Your task to perform on an android device: What's the weather today? Image 0: 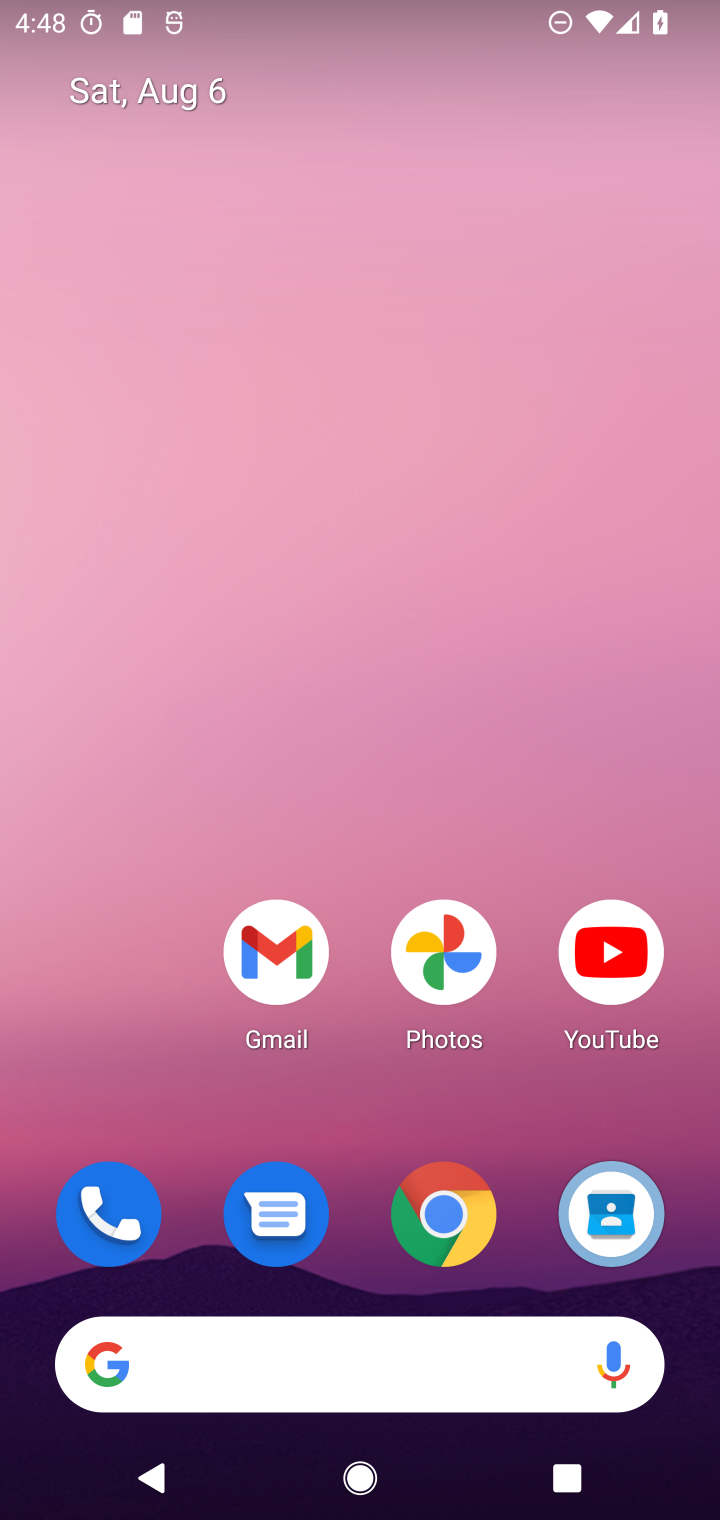
Step 0: click (417, 1402)
Your task to perform on an android device: What's the weather today? Image 1: 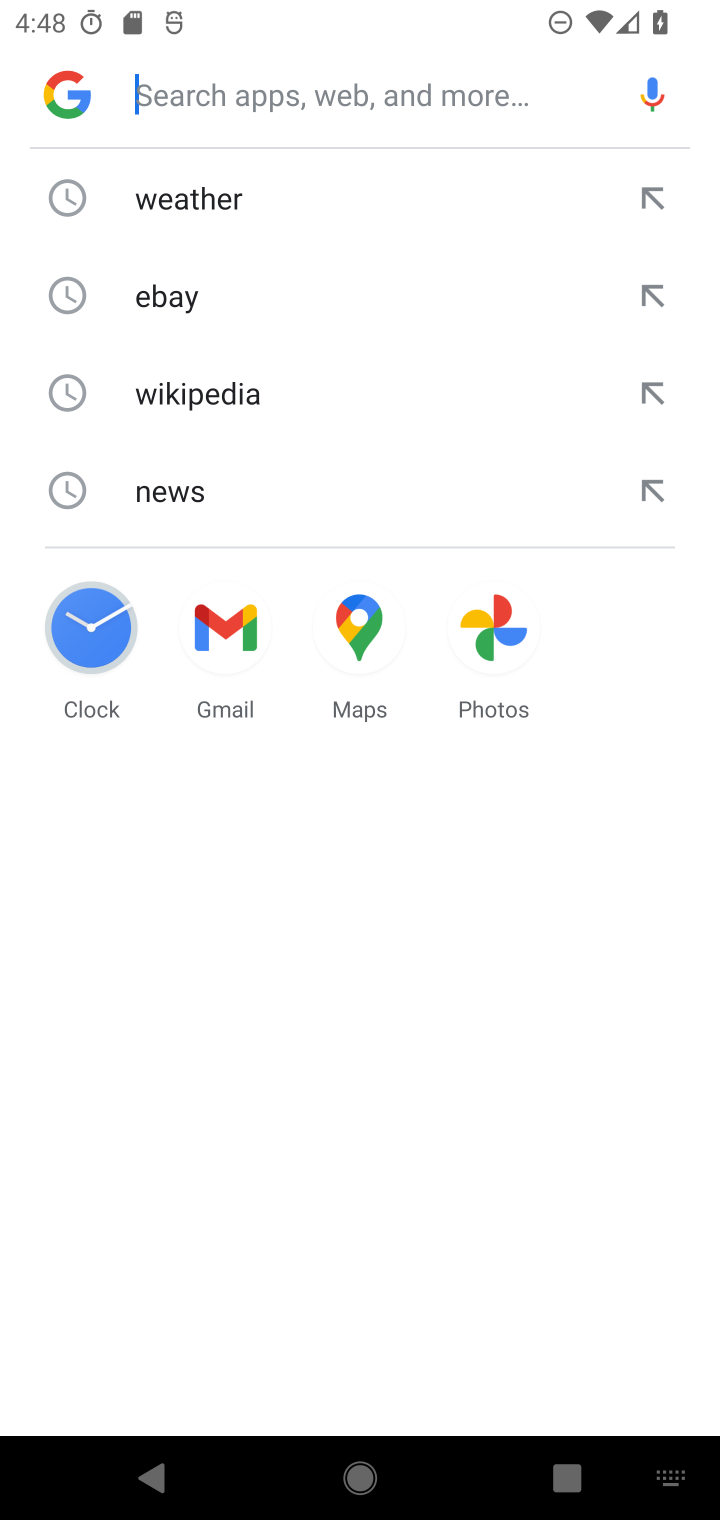
Step 1: click (168, 193)
Your task to perform on an android device: What's the weather today? Image 2: 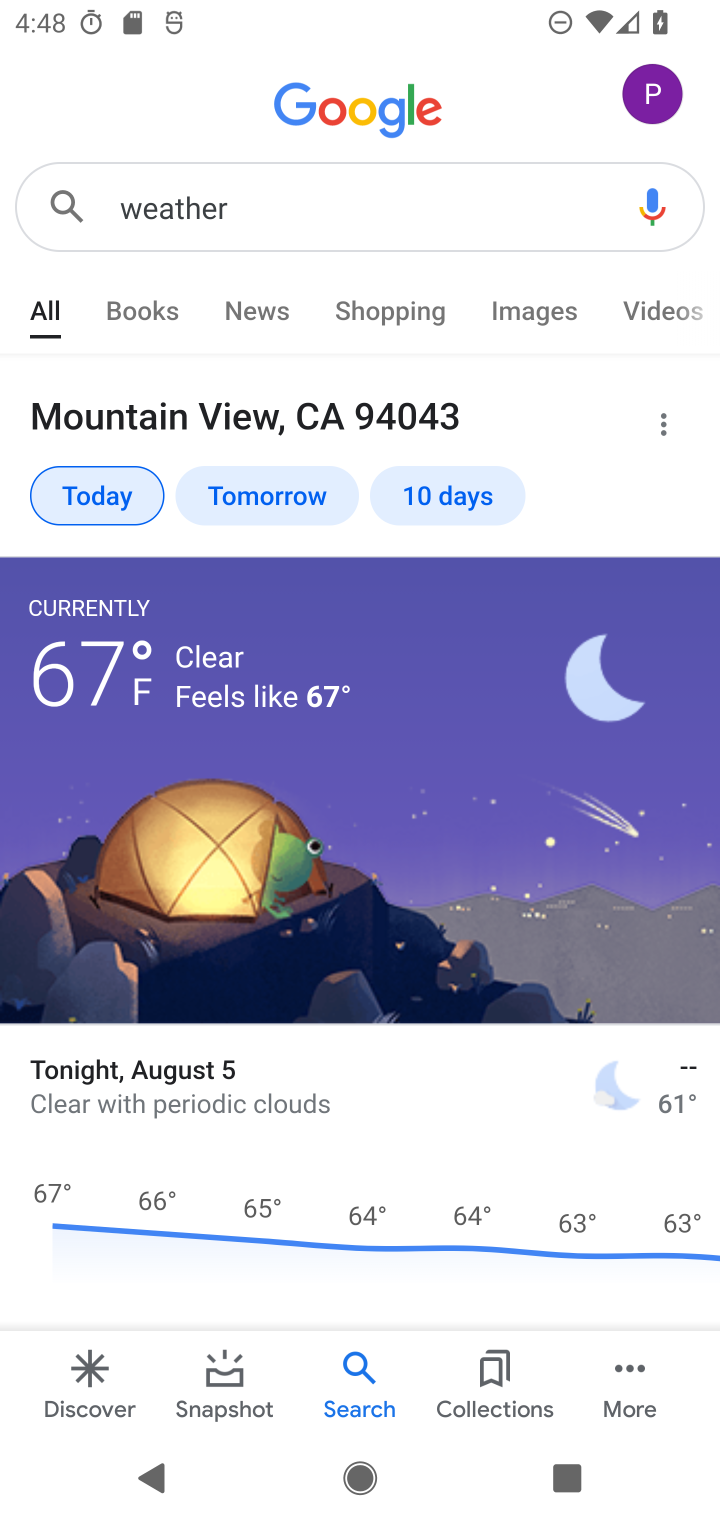
Step 2: task complete